Your task to perform on an android device: delete the emails in spam in the gmail app Image 0: 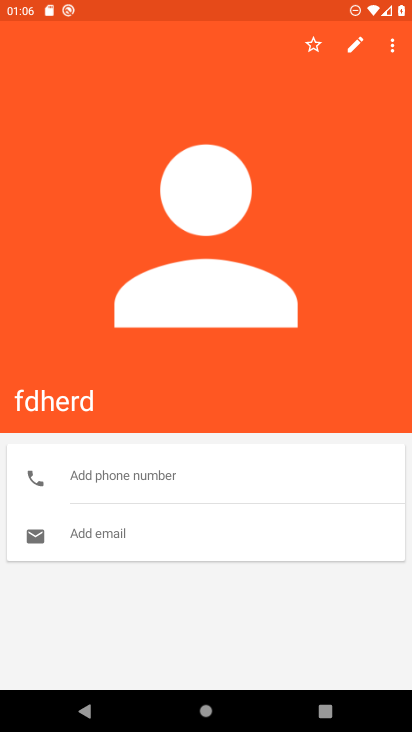
Step 0: press home button
Your task to perform on an android device: delete the emails in spam in the gmail app Image 1: 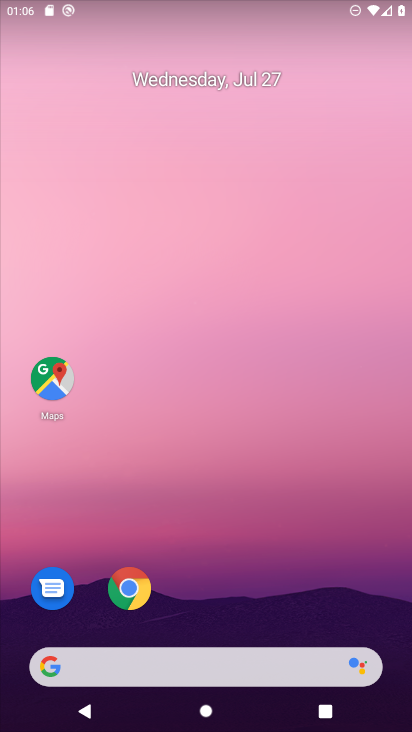
Step 1: drag from (53, 689) to (232, 92)
Your task to perform on an android device: delete the emails in spam in the gmail app Image 2: 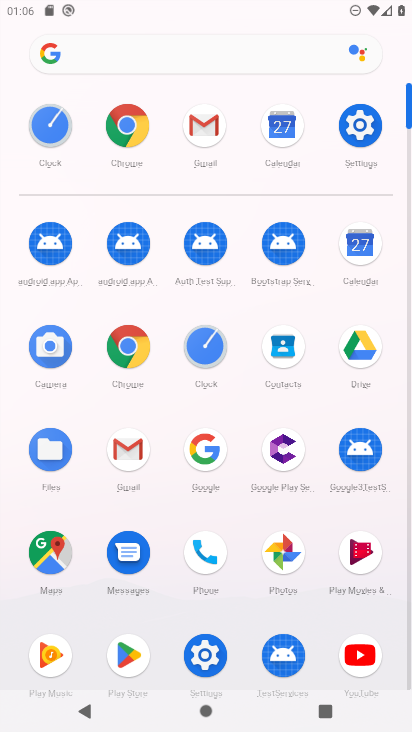
Step 2: click (128, 442)
Your task to perform on an android device: delete the emails in spam in the gmail app Image 3: 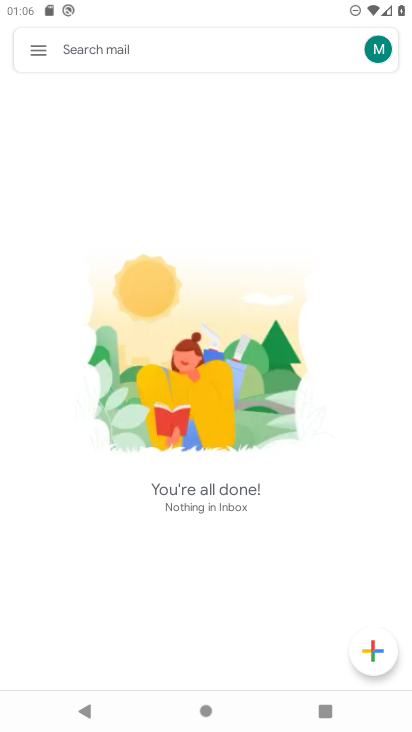
Step 3: click (35, 59)
Your task to perform on an android device: delete the emails in spam in the gmail app Image 4: 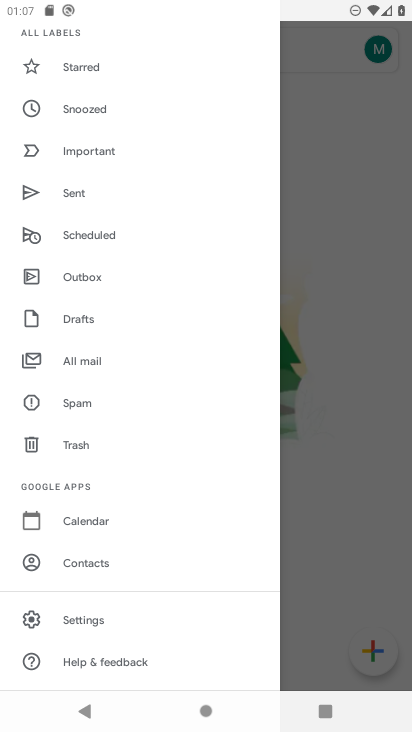
Step 4: click (74, 410)
Your task to perform on an android device: delete the emails in spam in the gmail app Image 5: 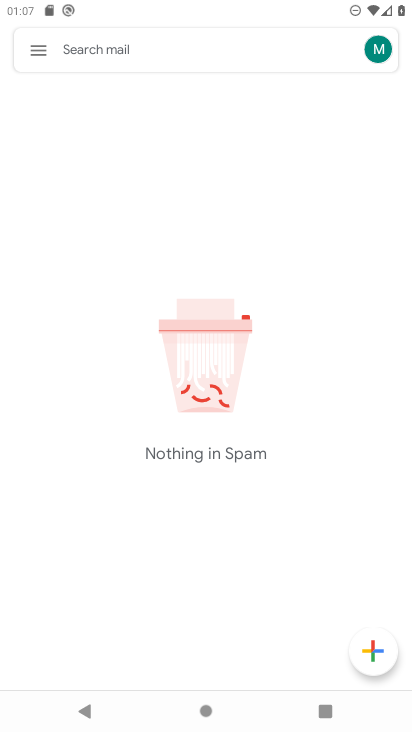
Step 5: task complete